Your task to perform on an android device: toggle improve location accuracy Image 0: 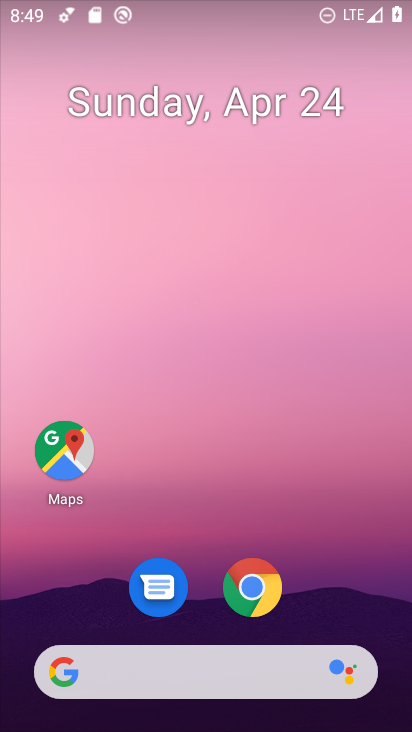
Step 0: drag from (338, 555) to (314, 87)
Your task to perform on an android device: toggle improve location accuracy Image 1: 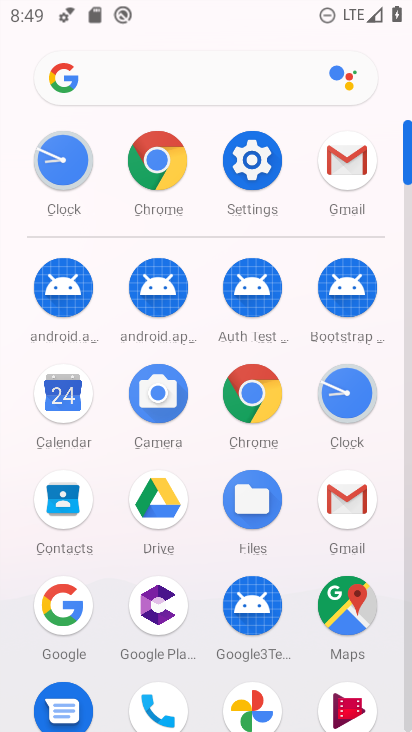
Step 1: click (249, 159)
Your task to perform on an android device: toggle improve location accuracy Image 2: 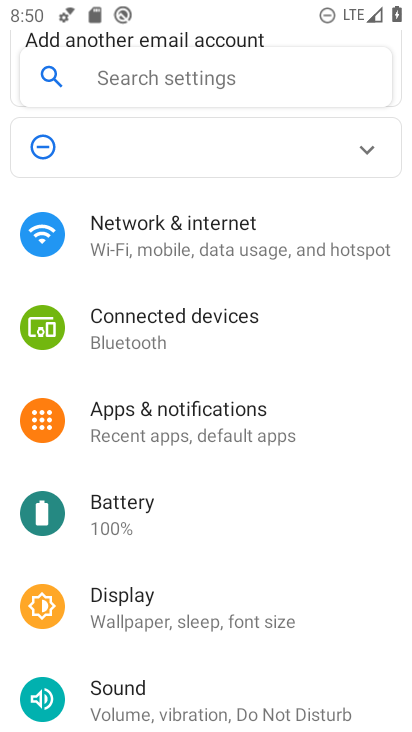
Step 2: drag from (222, 524) to (308, 305)
Your task to perform on an android device: toggle improve location accuracy Image 3: 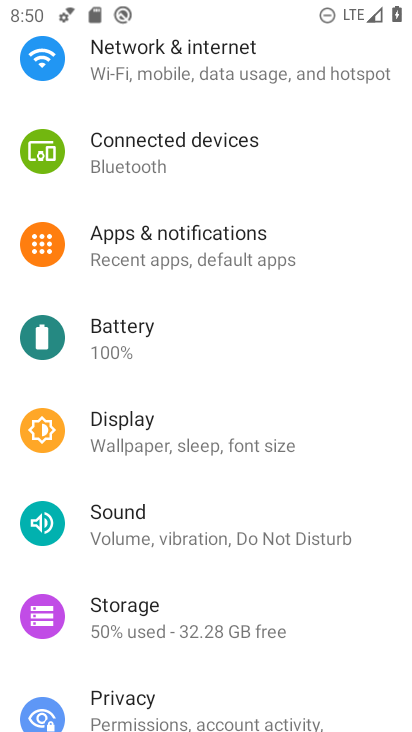
Step 3: drag from (323, 635) to (329, 314)
Your task to perform on an android device: toggle improve location accuracy Image 4: 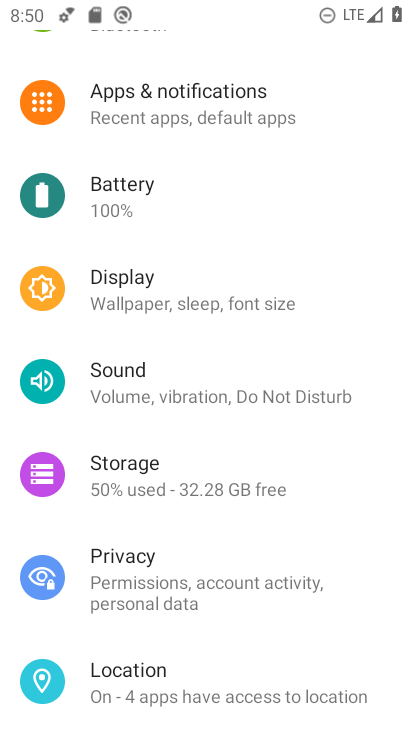
Step 4: click (267, 691)
Your task to perform on an android device: toggle improve location accuracy Image 5: 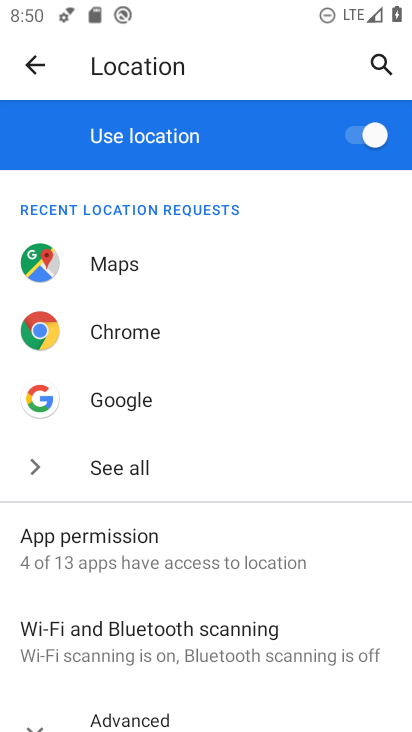
Step 5: drag from (255, 687) to (304, 401)
Your task to perform on an android device: toggle improve location accuracy Image 6: 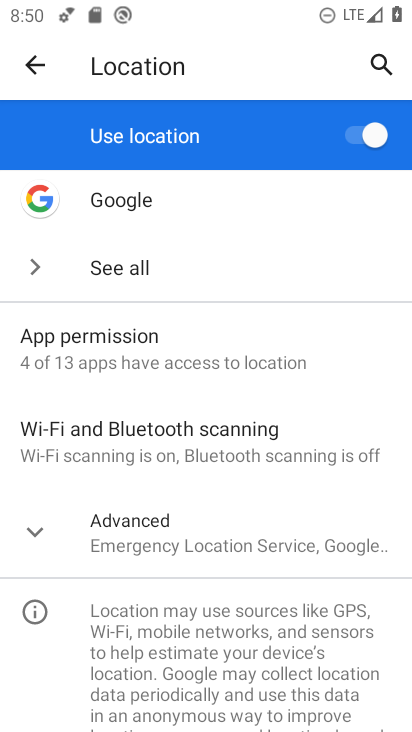
Step 6: click (209, 546)
Your task to perform on an android device: toggle improve location accuracy Image 7: 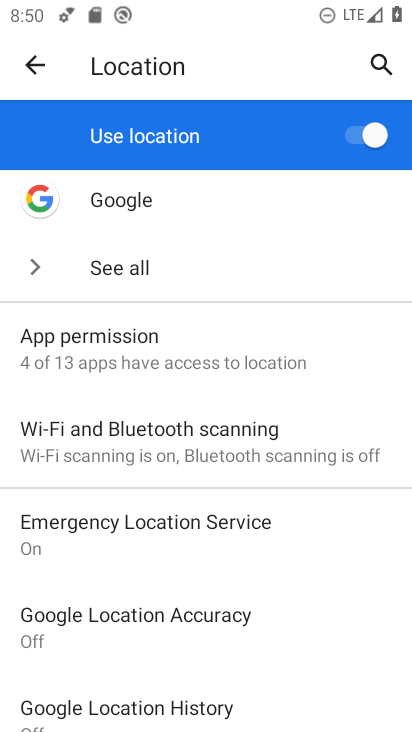
Step 7: click (195, 613)
Your task to perform on an android device: toggle improve location accuracy Image 8: 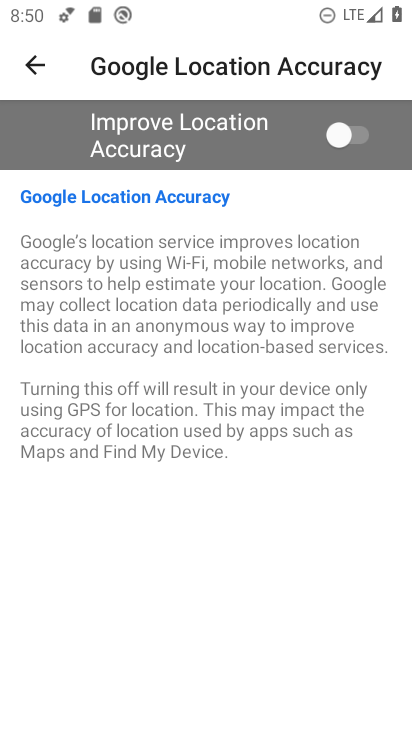
Step 8: click (361, 139)
Your task to perform on an android device: toggle improve location accuracy Image 9: 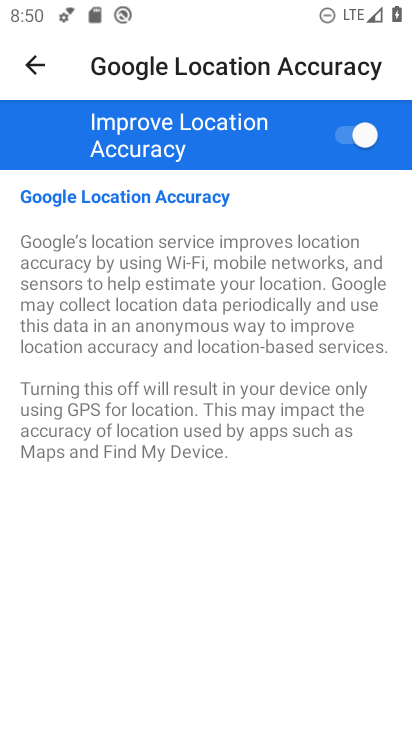
Step 9: task complete